Your task to perform on an android device: star an email in the gmail app Image 0: 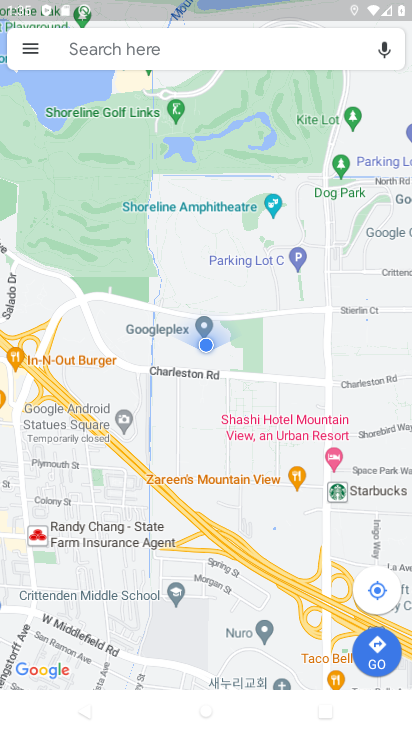
Step 0: press back button
Your task to perform on an android device: star an email in the gmail app Image 1: 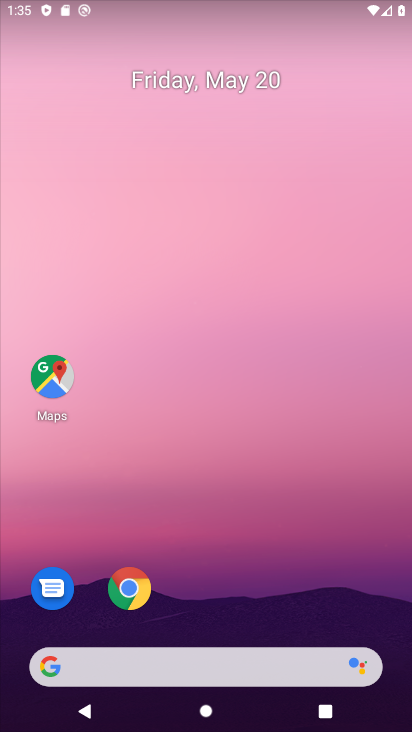
Step 1: press back button
Your task to perform on an android device: star an email in the gmail app Image 2: 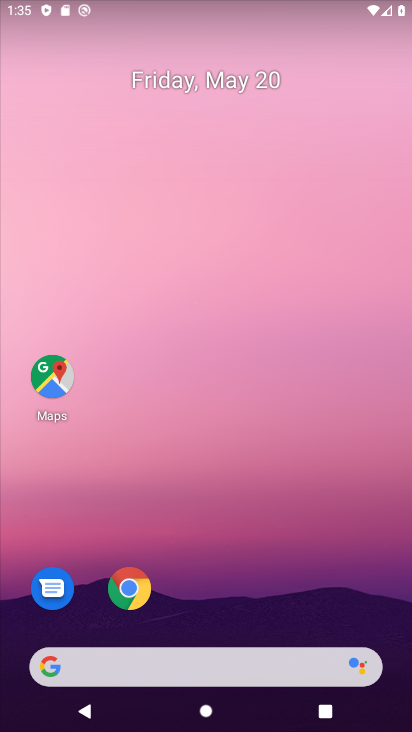
Step 2: press home button
Your task to perform on an android device: star an email in the gmail app Image 3: 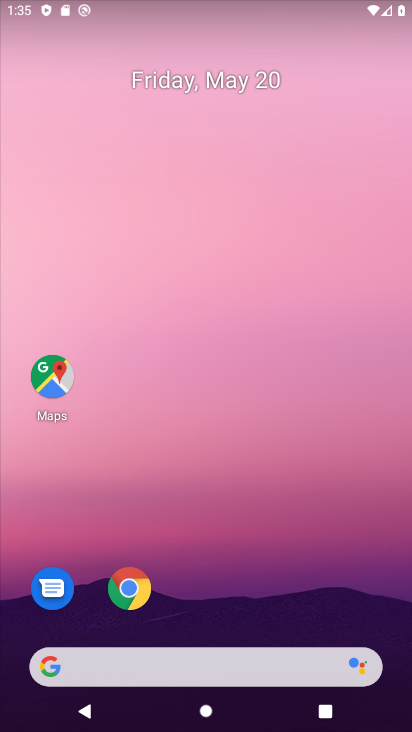
Step 3: click (128, 97)
Your task to perform on an android device: star an email in the gmail app Image 4: 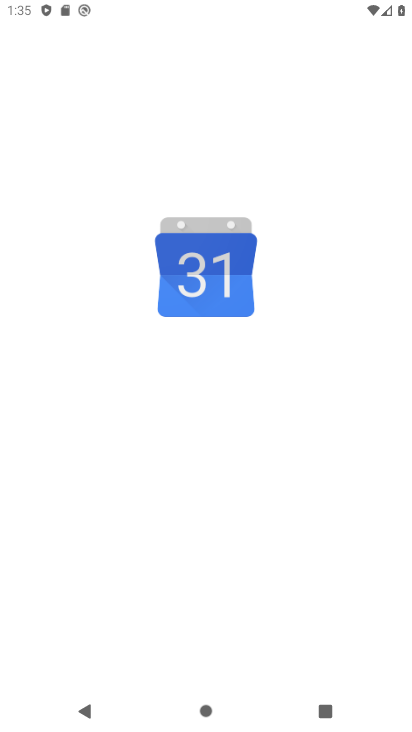
Step 4: drag from (128, 15) to (198, 16)
Your task to perform on an android device: star an email in the gmail app Image 5: 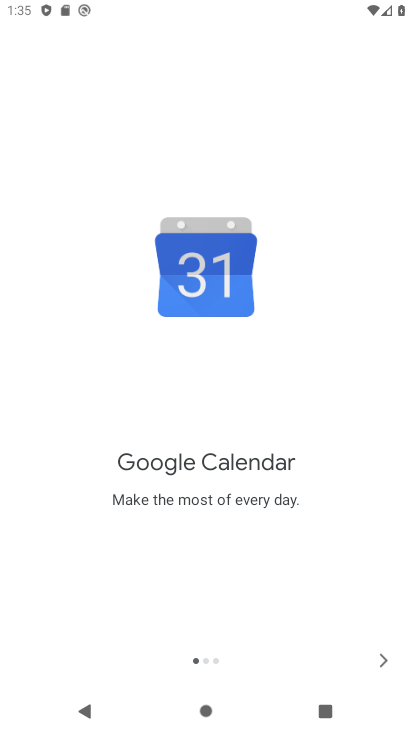
Step 5: drag from (229, 480) to (108, 76)
Your task to perform on an android device: star an email in the gmail app Image 6: 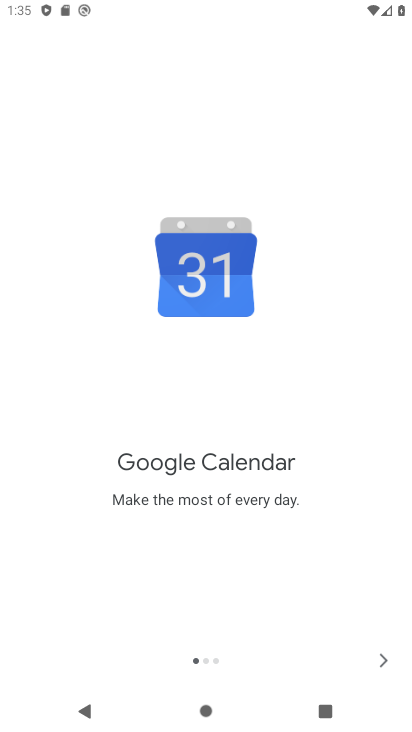
Step 6: click (114, 7)
Your task to perform on an android device: star an email in the gmail app Image 7: 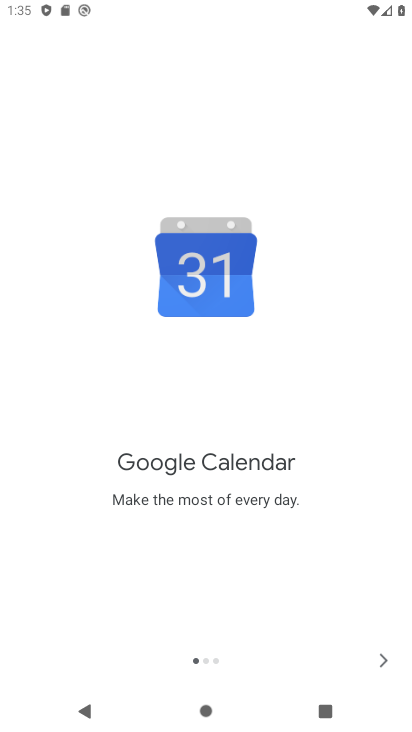
Step 7: task complete